Your task to perform on an android device: open app "Speedtest by Ookla" (install if not already installed) Image 0: 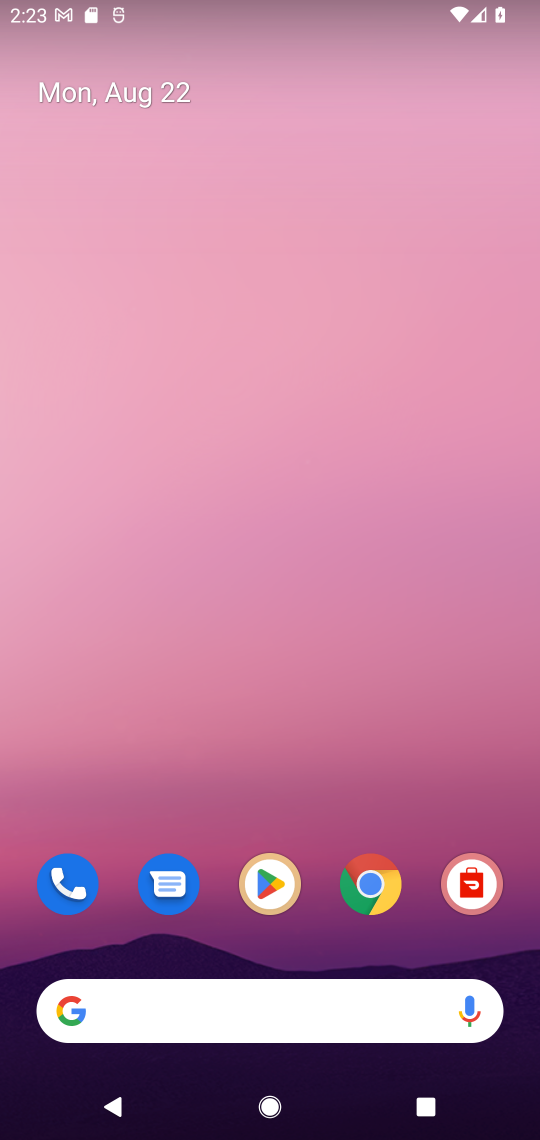
Step 0: click (271, 880)
Your task to perform on an android device: open app "Speedtest by Ookla" (install if not already installed) Image 1: 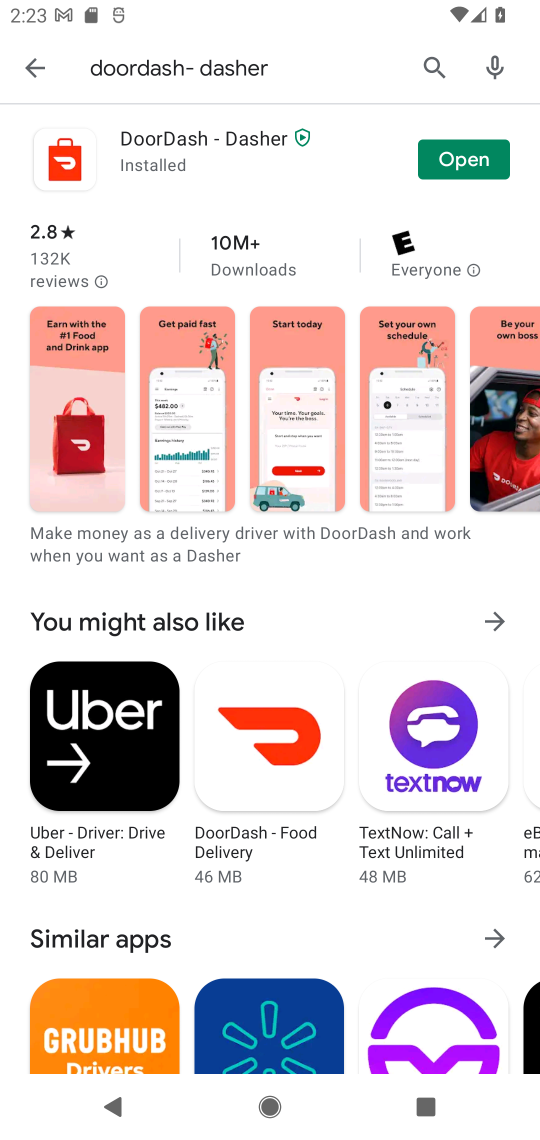
Step 1: click (435, 60)
Your task to perform on an android device: open app "Speedtest by Ookla" (install if not already installed) Image 2: 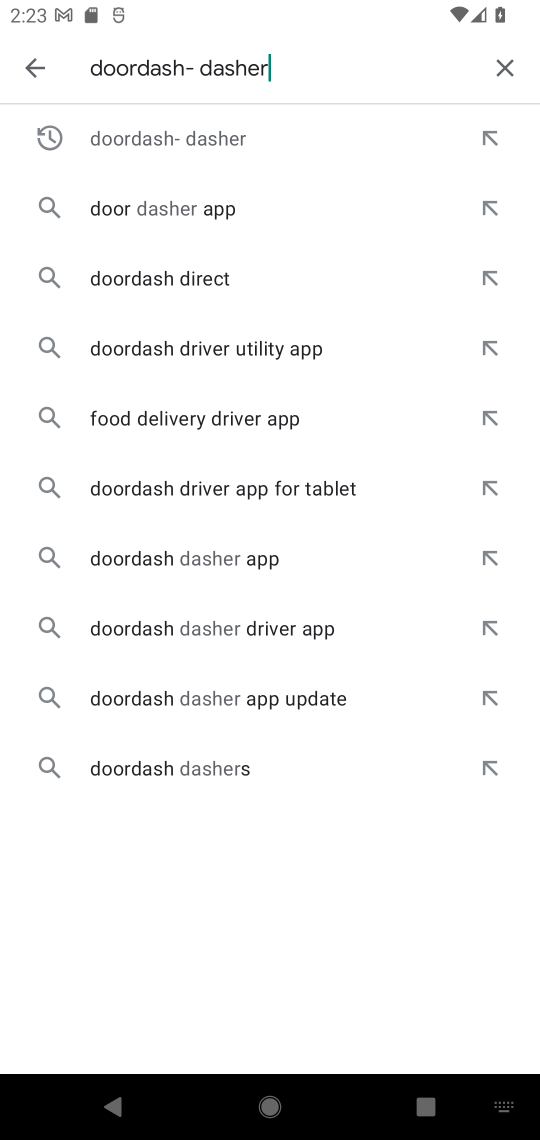
Step 2: click (504, 62)
Your task to perform on an android device: open app "Speedtest by Ookla" (install if not already installed) Image 3: 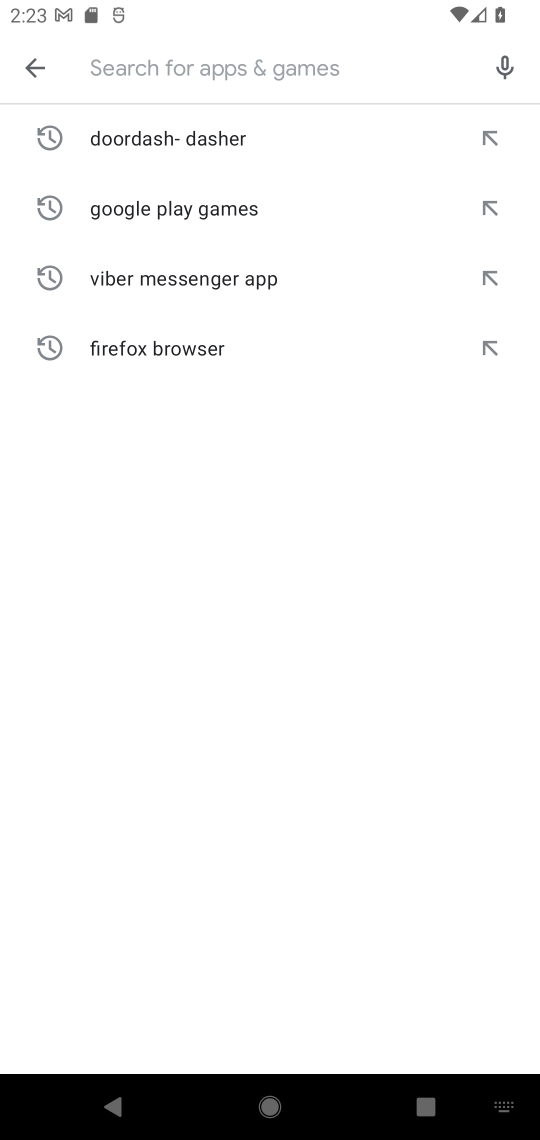
Step 3: type "speedtest by ookla"
Your task to perform on an android device: open app "Speedtest by Ookla" (install if not already installed) Image 4: 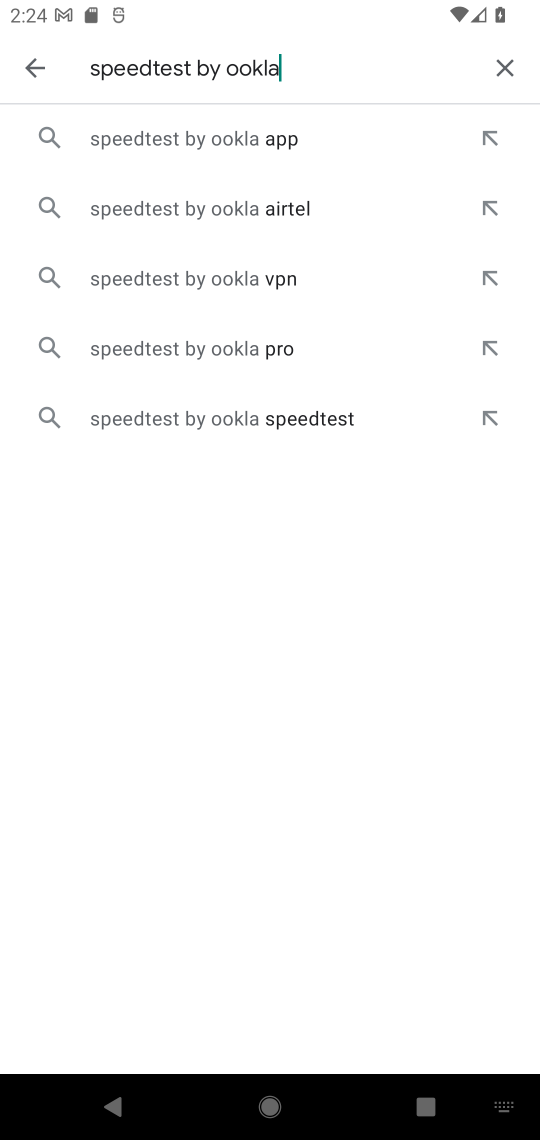
Step 4: click (216, 136)
Your task to perform on an android device: open app "Speedtest by Ookla" (install if not already installed) Image 5: 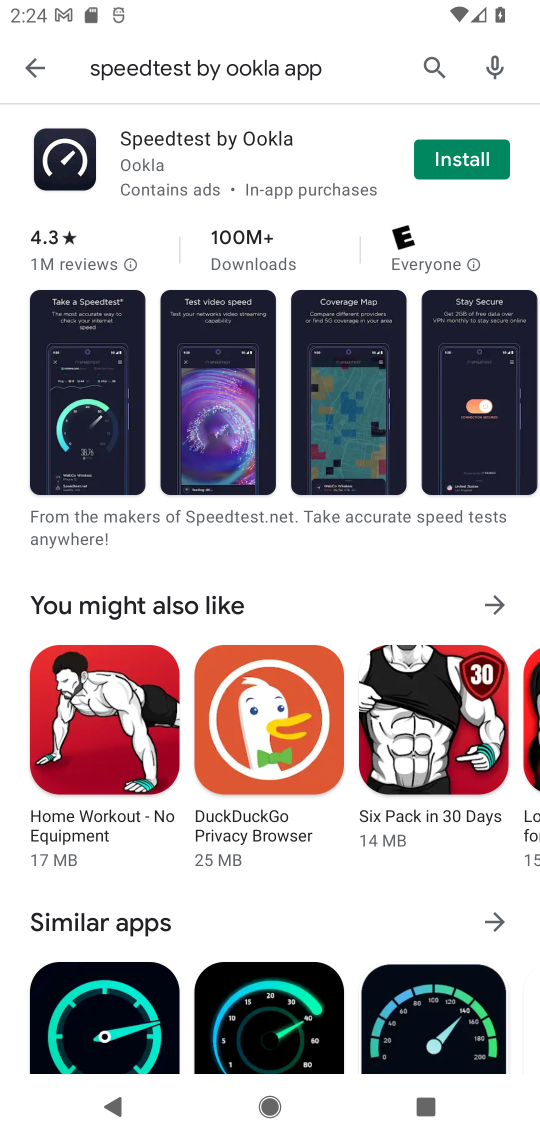
Step 5: click (463, 160)
Your task to perform on an android device: open app "Speedtest by Ookla" (install if not already installed) Image 6: 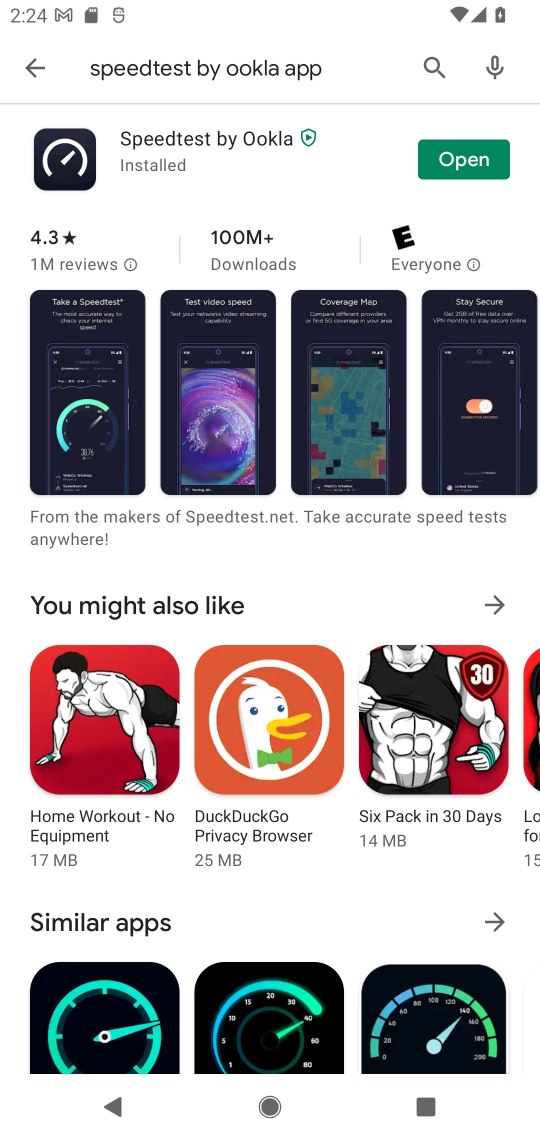
Step 6: click (463, 160)
Your task to perform on an android device: open app "Speedtest by Ookla" (install if not already installed) Image 7: 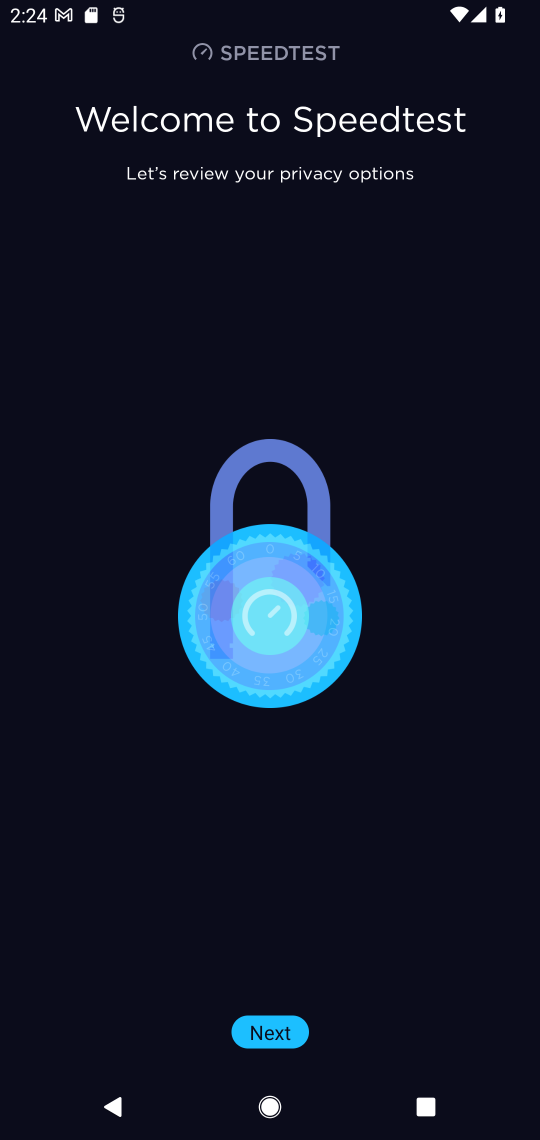
Step 7: click (289, 1026)
Your task to perform on an android device: open app "Speedtest by Ookla" (install if not already installed) Image 8: 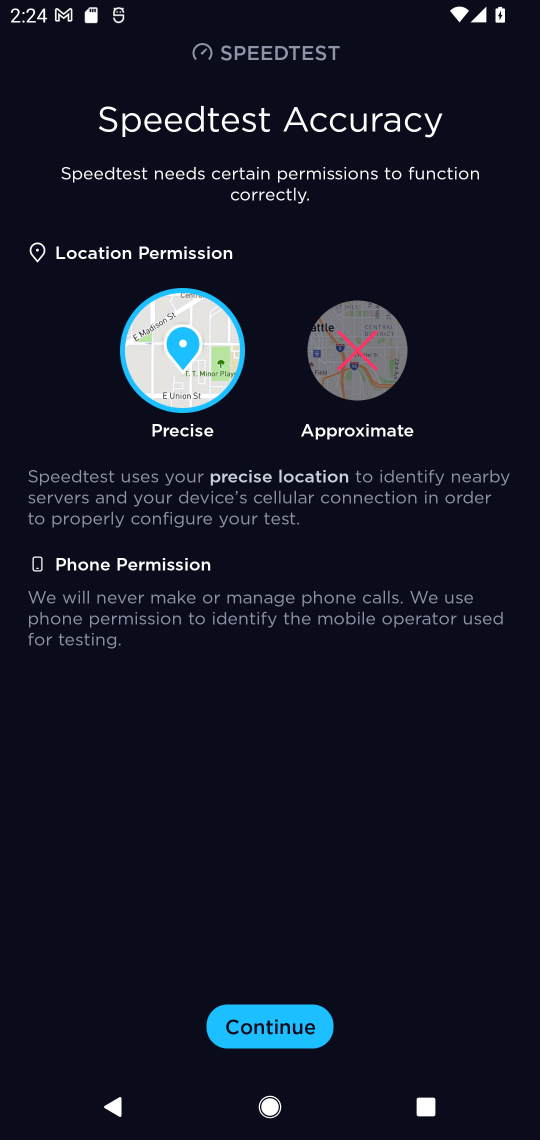
Step 8: click (289, 1026)
Your task to perform on an android device: open app "Speedtest by Ookla" (install if not already installed) Image 9: 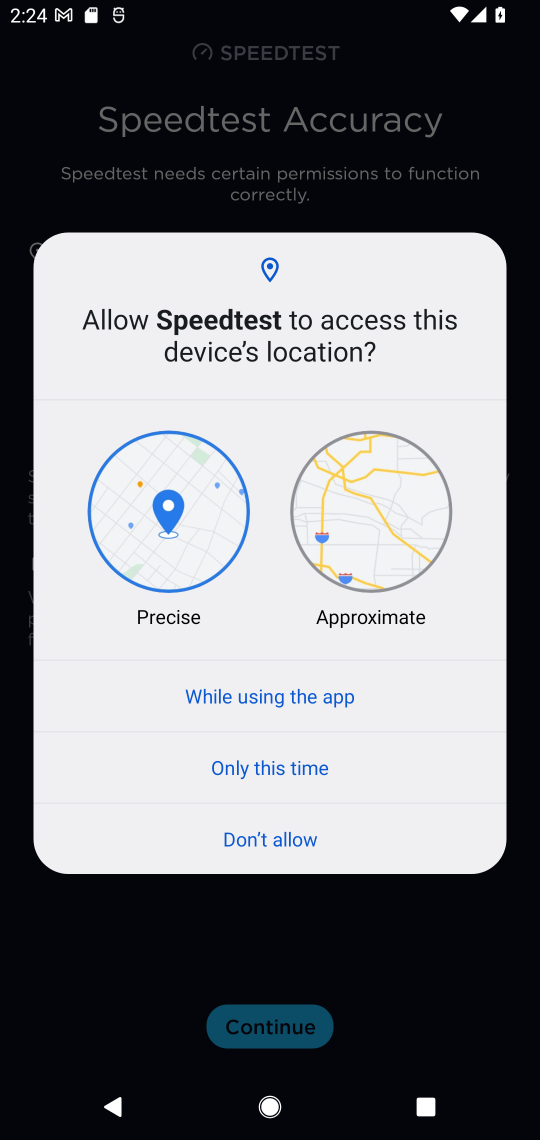
Step 9: click (290, 683)
Your task to perform on an android device: open app "Speedtest by Ookla" (install if not already installed) Image 10: 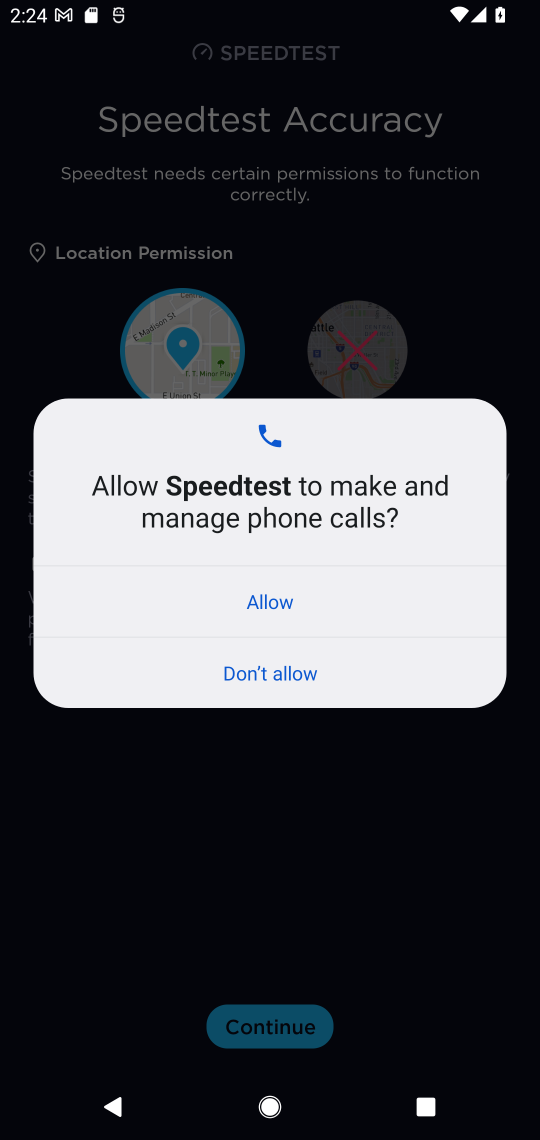
Step 10: click (267, 600)
Your task to perform on an android device: open app "Speedtest by Ookla" (install if not already installed) Image 11: 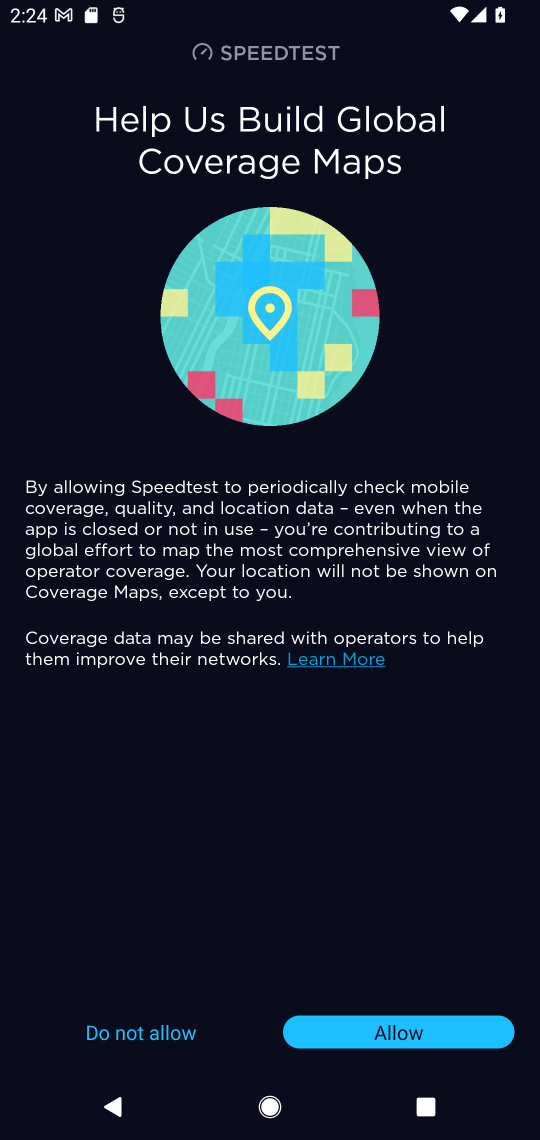
Step 11: click (361, 1029)
Your task to perform on an android device: open app "Speedtest by Ookla" (install if not already installed) Image 12: 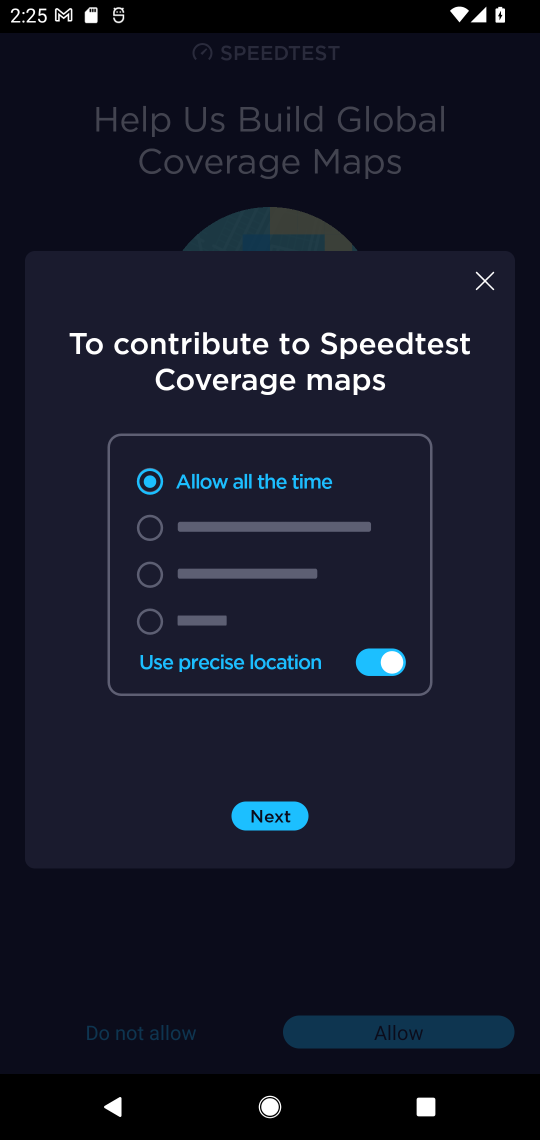
Step 12: click (266, 821)
Your task to perform on an android device: open app "Speedtest by Ookla" (install if not already installed) Image 13: 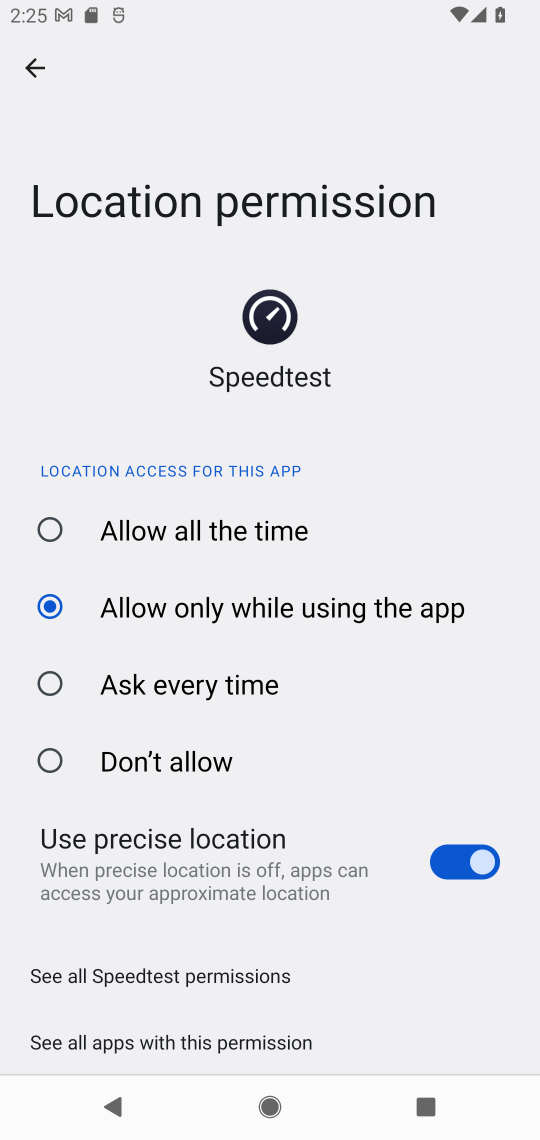
Step 13: task complete